Your task to perform on an android device: install app "Indeed Job Search" Image 0: 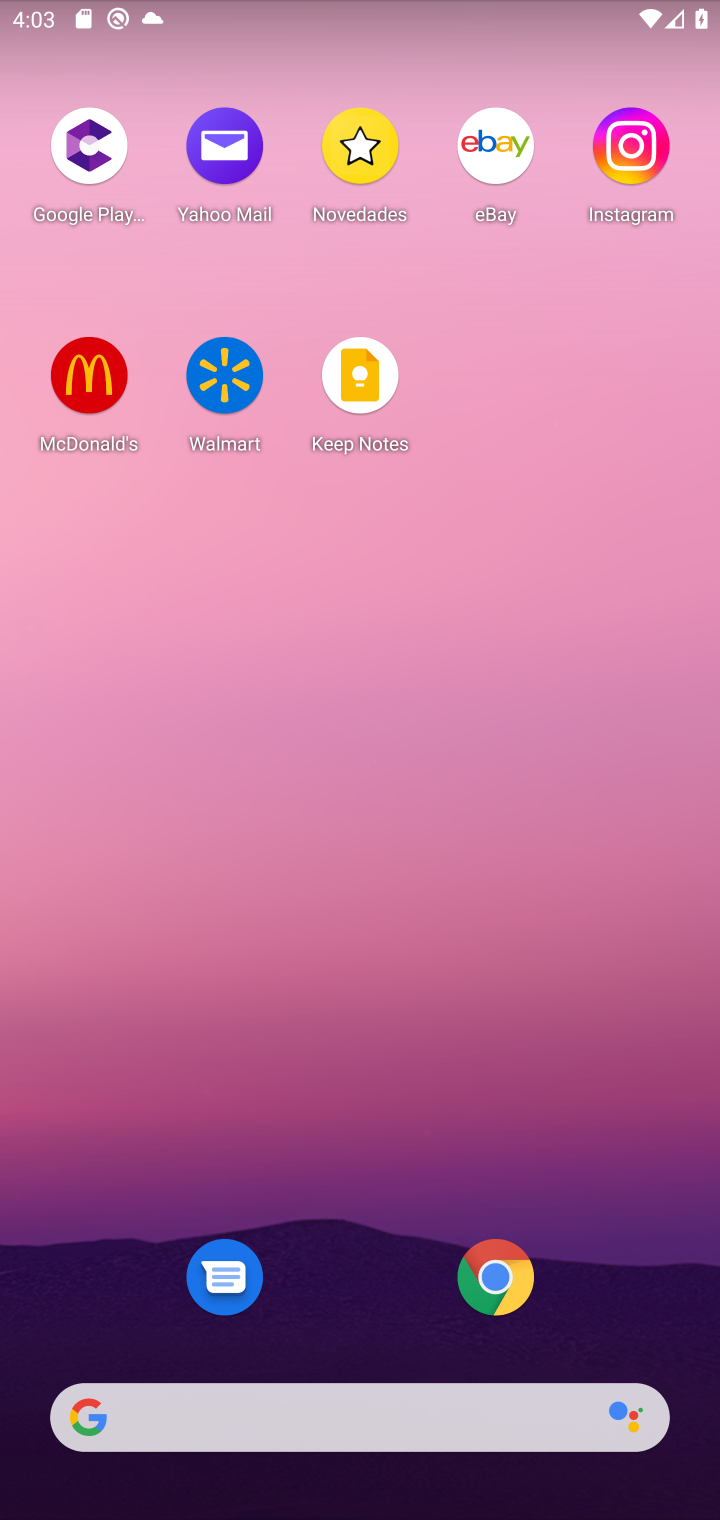
Step 0: drag from (606, 1199) to (718, 176)
Your task to perform on an android device: install app "Indeed Job Search" Image 1: 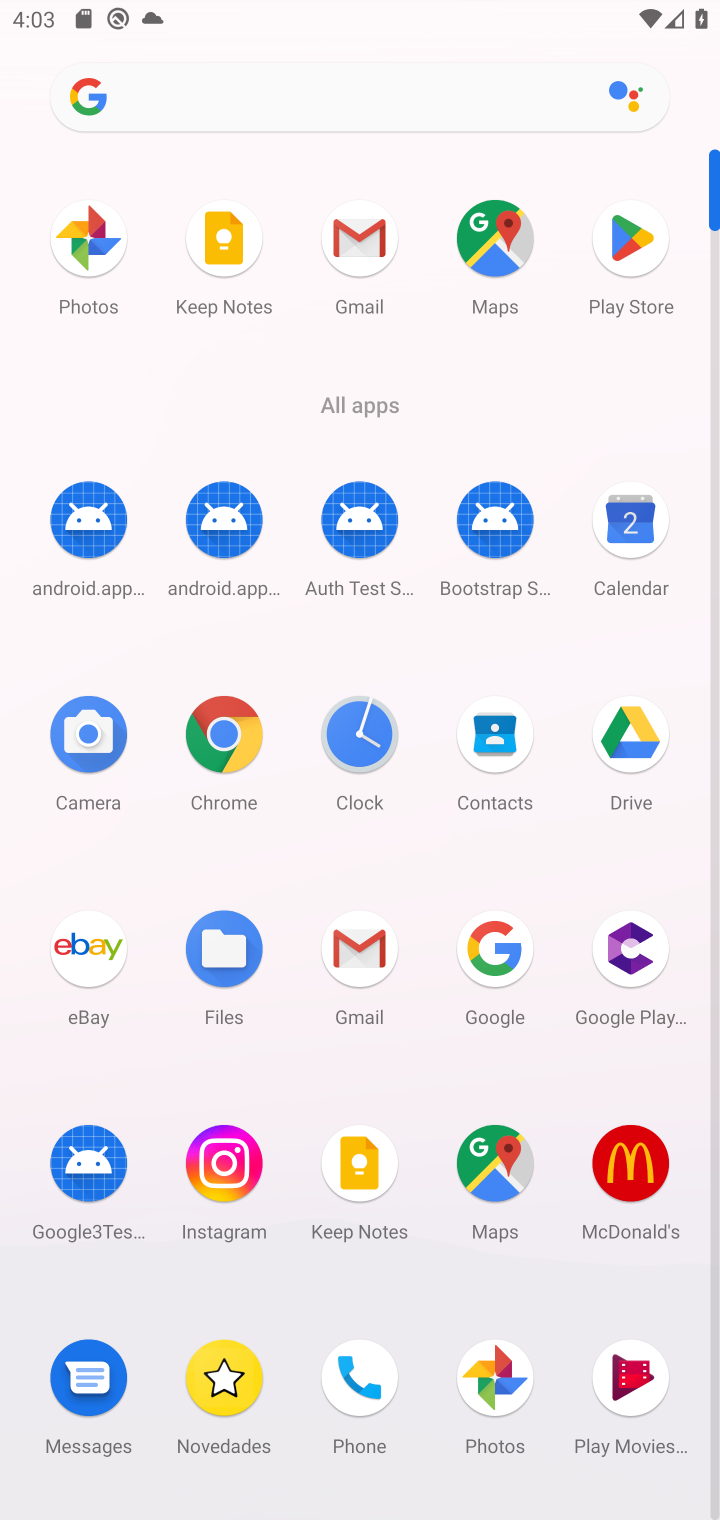
Step 1: drag from (435, 1295) to (472, 723)
Your task to perform on an android device: install app "Indeed Job Search" Image 2: 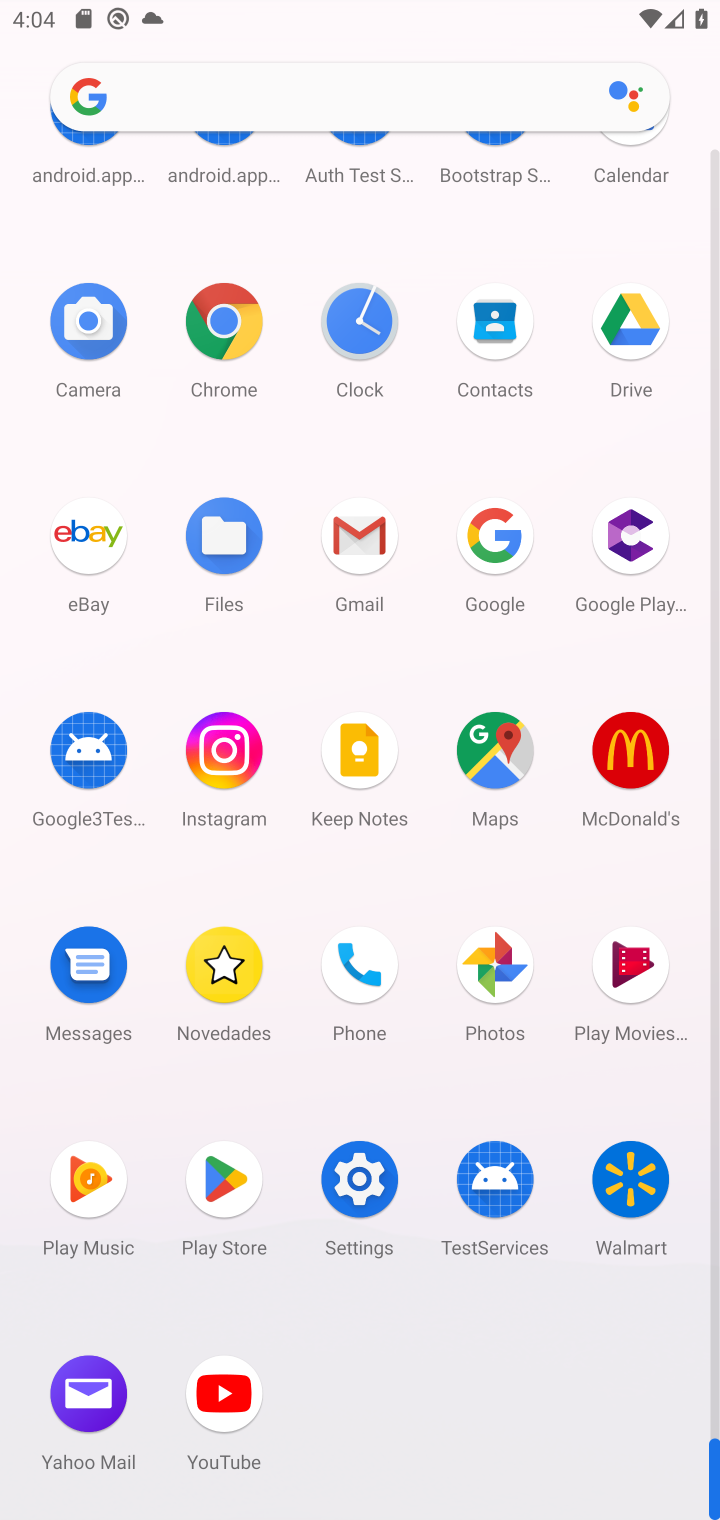
Step 2: click (207, 1164)
Your task to perform on an android device: install app "Indeed Job Search" Image 3: 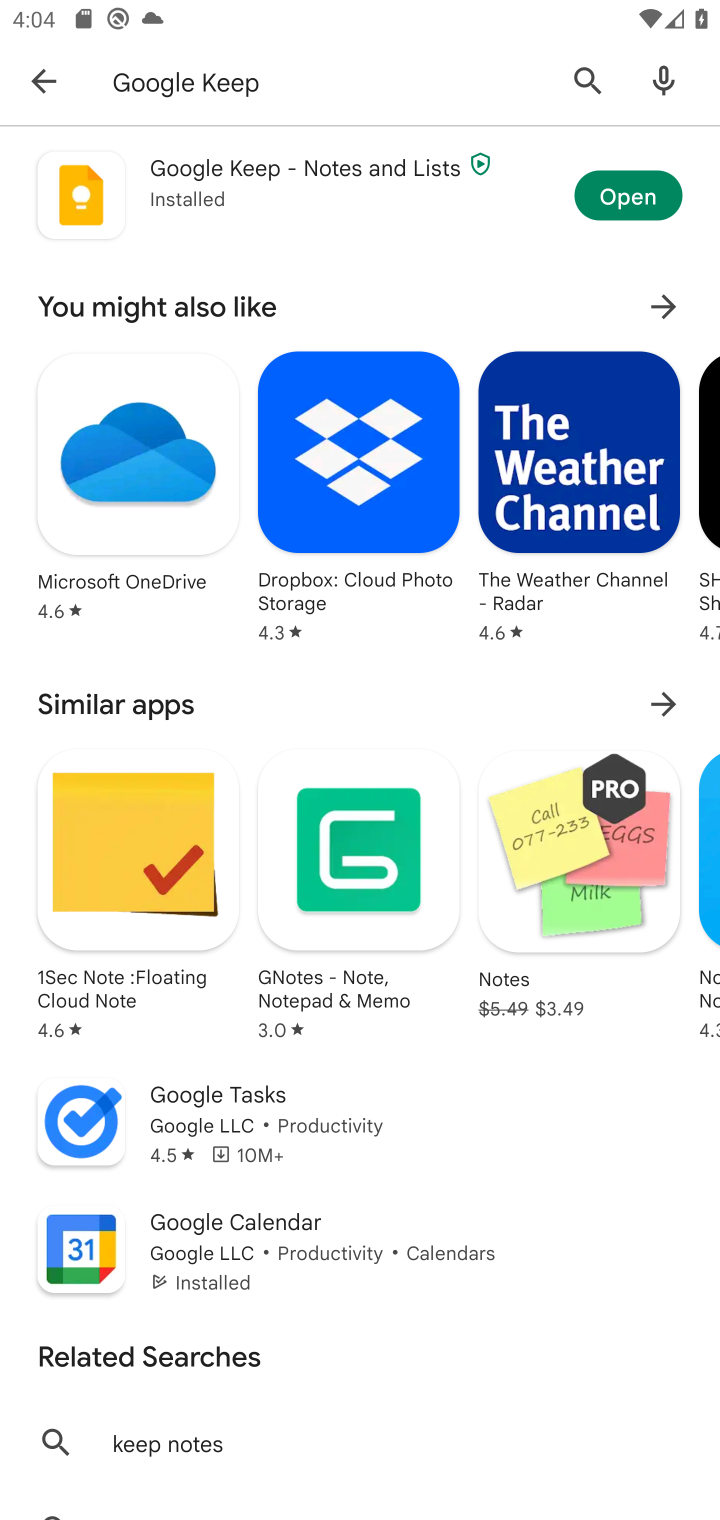
Step 3: click (356, 88)
Your task to perform on an android device: install app "Indeed Job Search" Image 4: 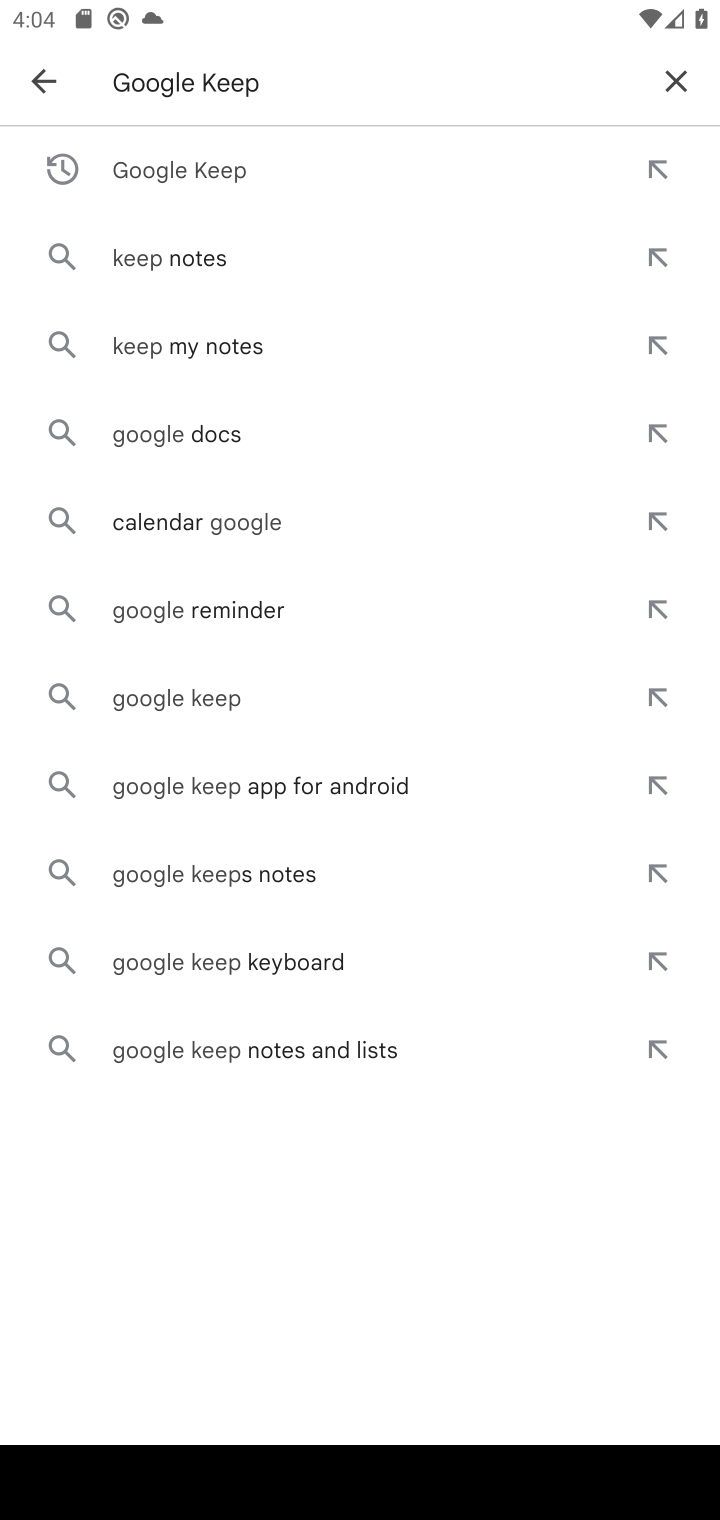
Step 4: click (675, 87)
Your task to perform on an android device: install app "Indeed Job Search" Image 5: 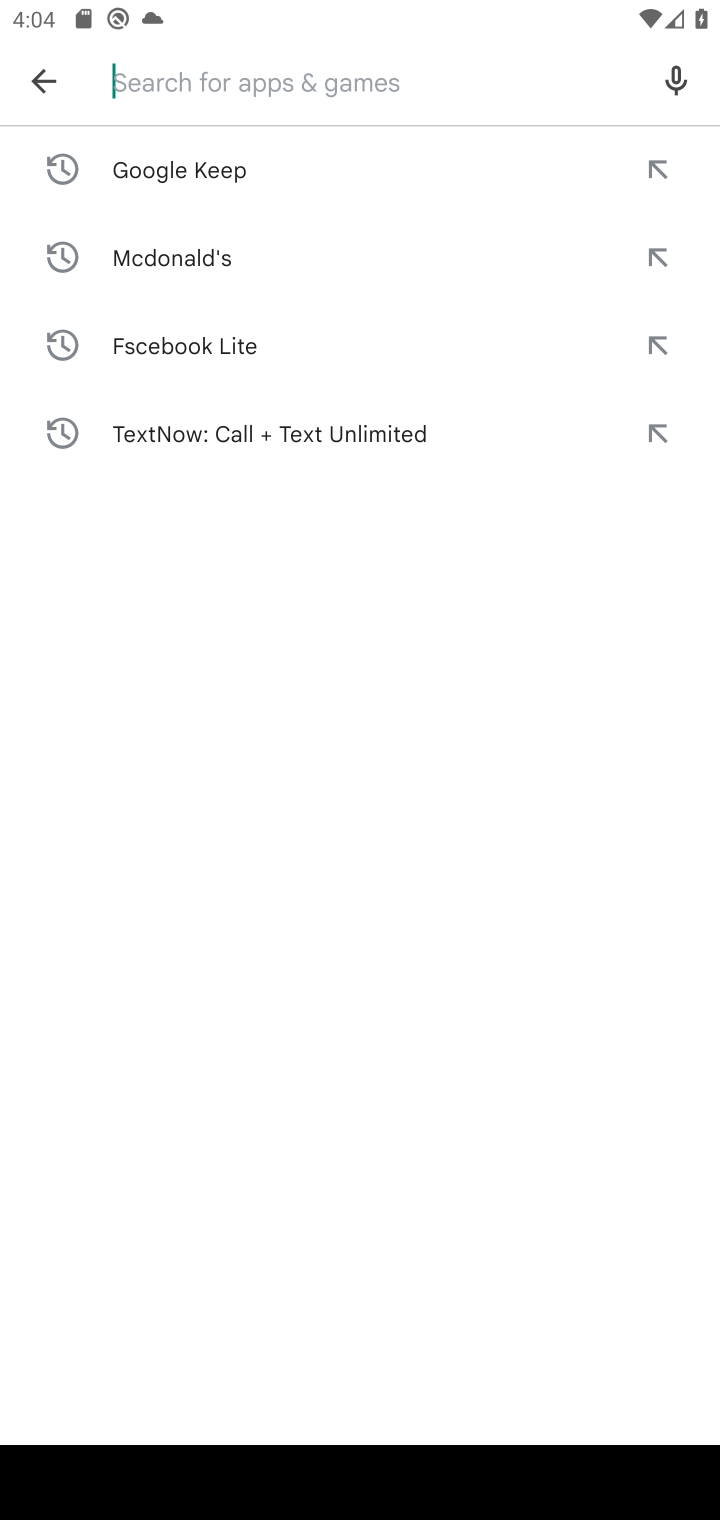
Step 5: type "Indeed Job Search"
Your task to perform on an android device: install app "Indeed Job Search" Image 6: 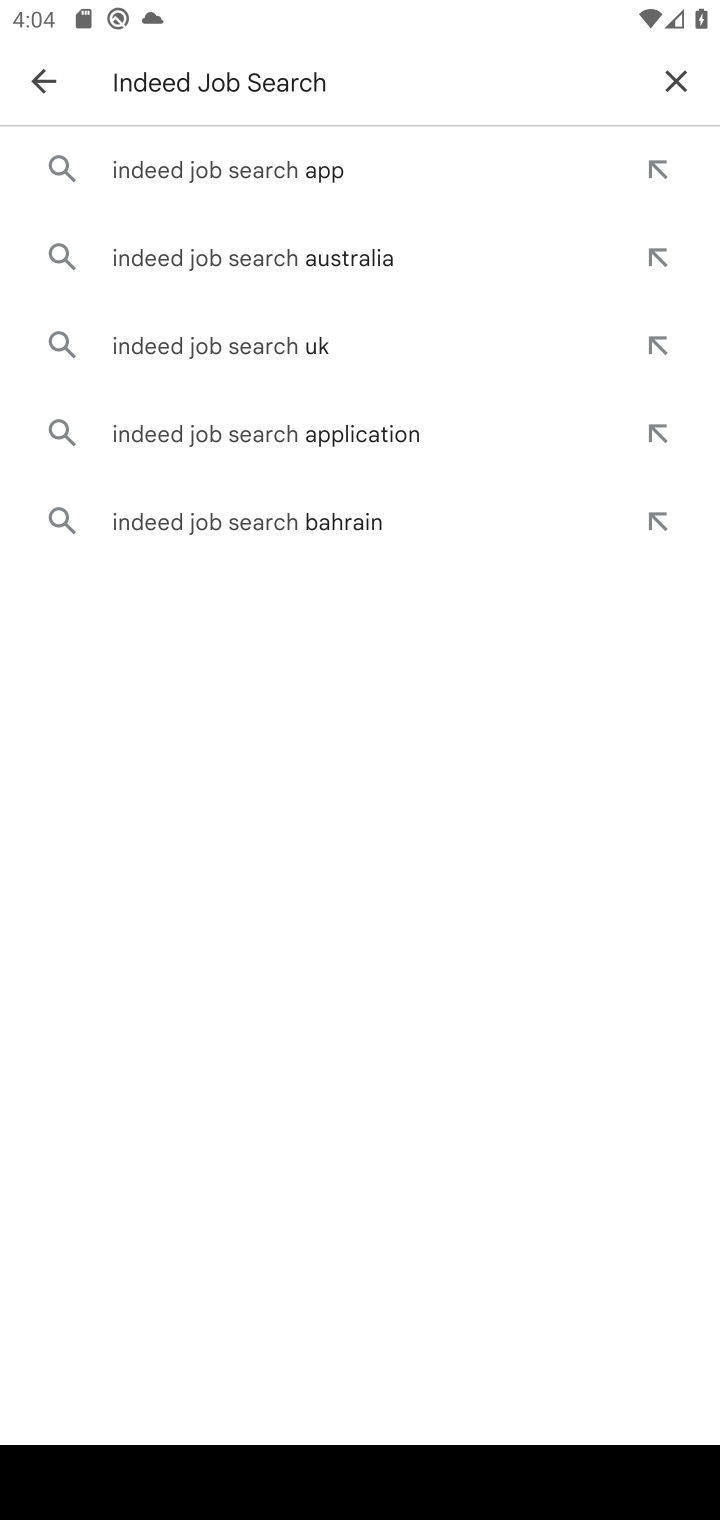
Step 6: press enter
Your task to perform on an android device: install app "Indeed Job Search" Image 7: 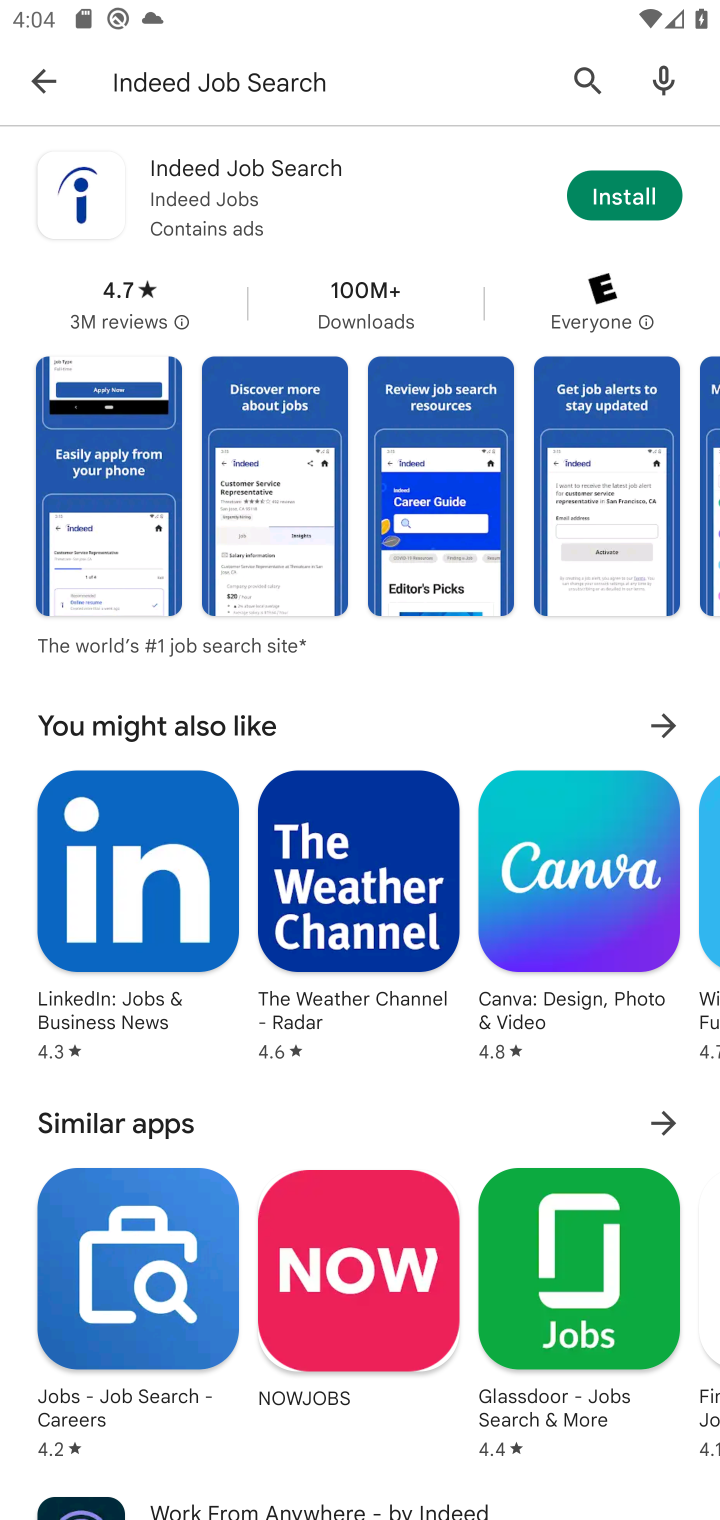
Step 7: click (635, 178)
Your task to perform on an android device: install app "Indeed Job Search" Image 8: 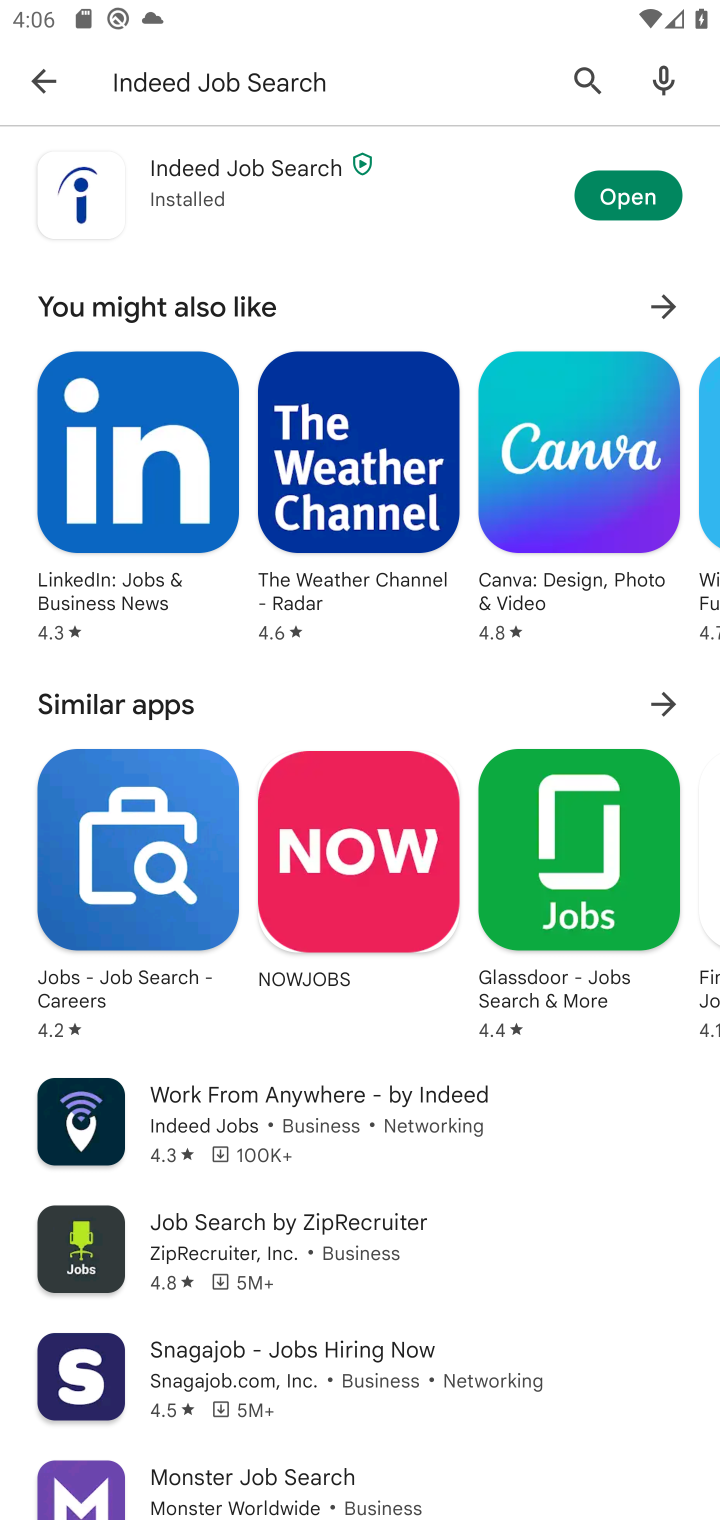
Step 8: task complete